Your task to perform on an android device: search for starred emails in the gmail app Image 0: 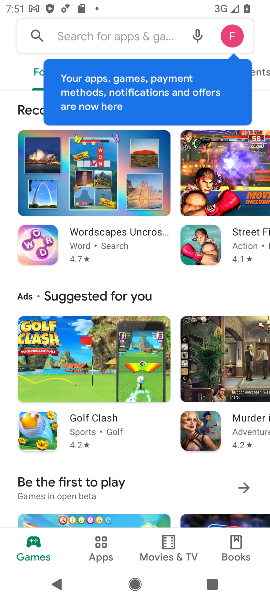
Step 0: press home button
Your task to perform on an android device: search for starred emails in the gmail app Image 1: 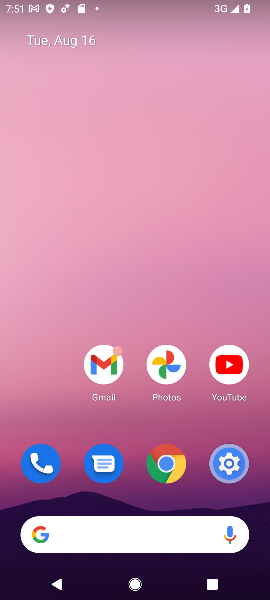
Step 1: click (111, 374)
Your task to perform on an android device: search for starred emails in the gmail app Image 2: 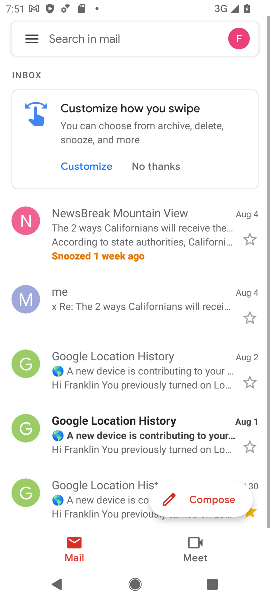
Step 2: click (94, 365)
Your task to perform on an android device: search for starred emails in the gmail app Image 3: 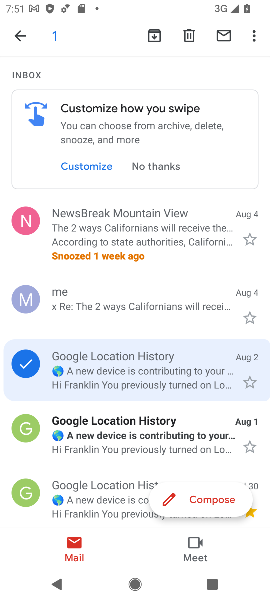
Step 3: click (14, 33)
Your task to perform on an android device: search for starred emails in the gmail app Image 4: 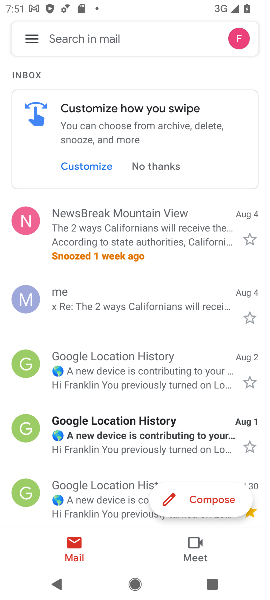
Step 4: click (24, 32)
Your task to perform on an android device: search for starred emails in the gmail app Image 5: 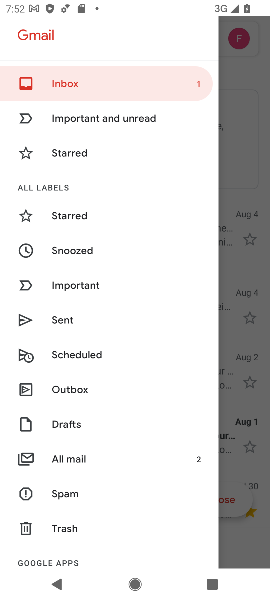
Step 5: click (65, 155)
Your task to perform on an android device: search for starred emails in the gmail app Image 6: 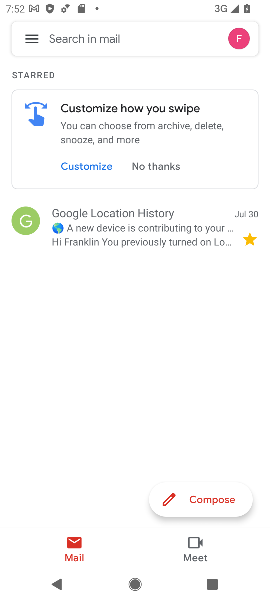
Step 6: task complete